Your task to perform on an android device: Go to calendar. Show me events next week Image 0: 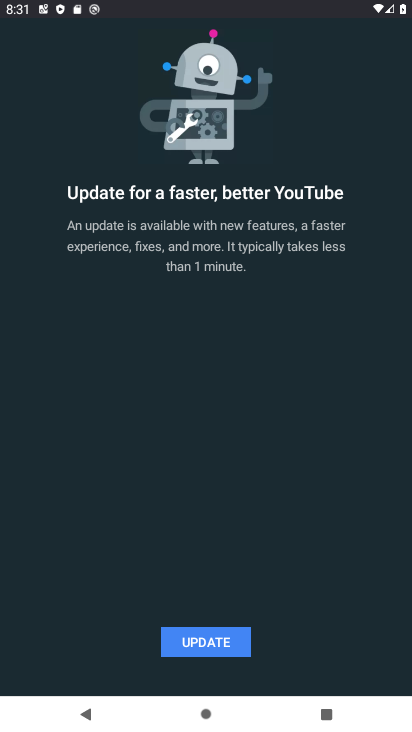
Step 0: press home button
Your task to perform on an android device: Go to calendar. Show me events next week Image 1: 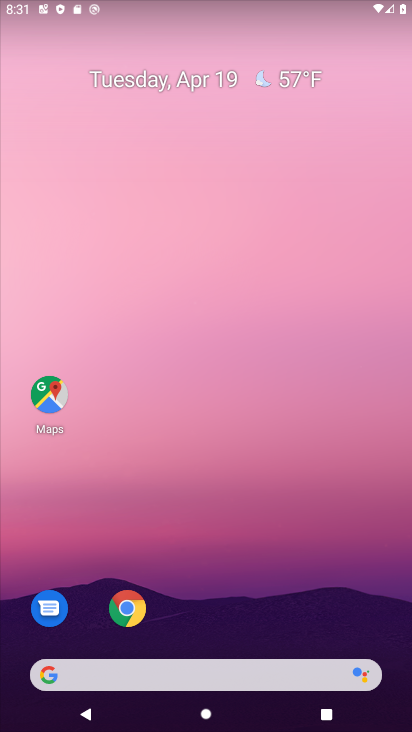
Step 1: drag from (251, 532) to (287, 165)
Your task to perform on an android device: Go to calendar. Show me events next week Image 2: 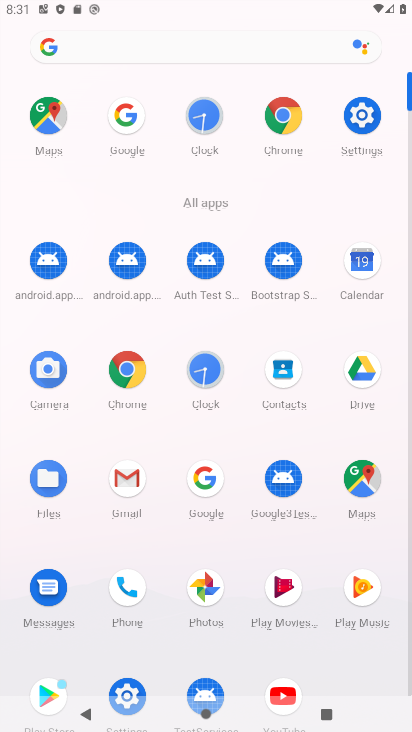
Step 2: click (361, 262)
Your task to perform on an android device: Go to calendar. Show me events next week Image 3: 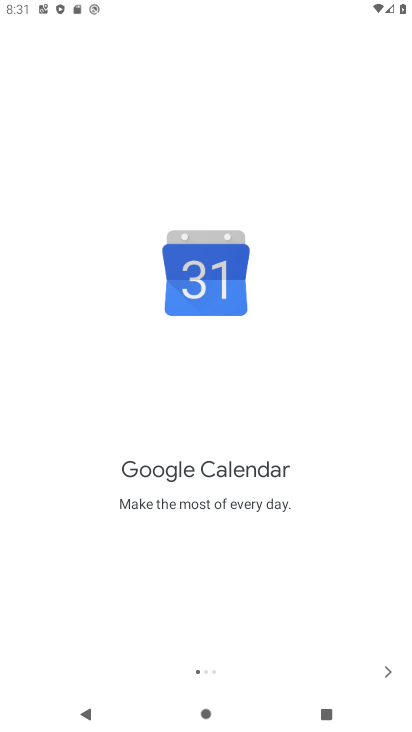
Step 3: click (387, 671)
Your task to perform on an android device: Go to calendar. Show me events next week Image 4: 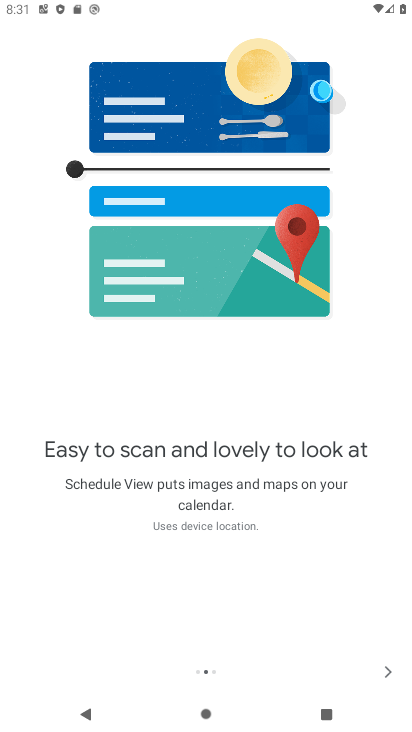
Step 4: click (387, 671)
Your task to perform on an android device: Go to calendar. Show me events next week Image 5: 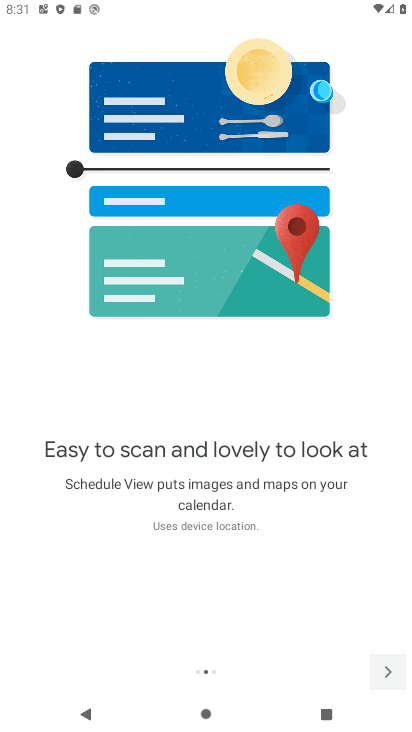
Step 5: click (387, 671)
Your task to perform on an android device: Go to calendar. Show me events next week Image 6: 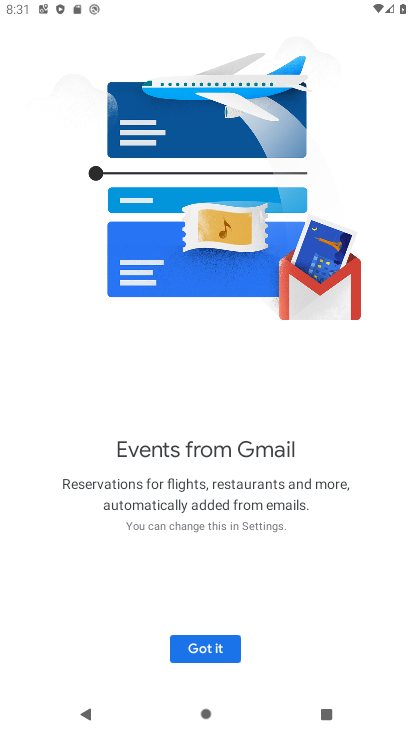
Step 6: click (207, 645)
Your task to perform on an android device: Go to calendar. Show me events next week Image 7: 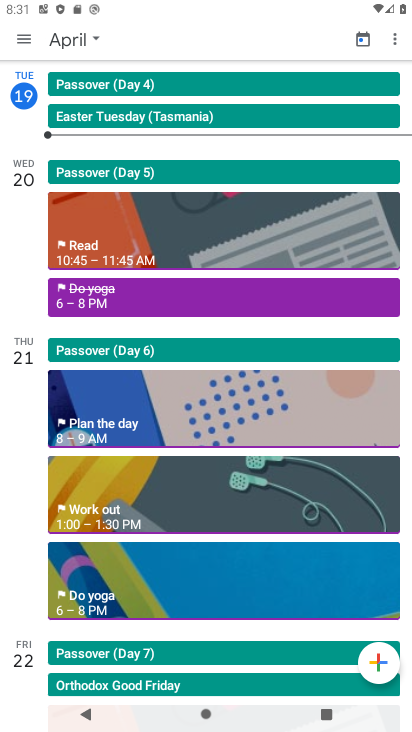
Step 7: click (82, 40)
Your task to perform on an android device: Go to calendar. Show me events next week Image 8: 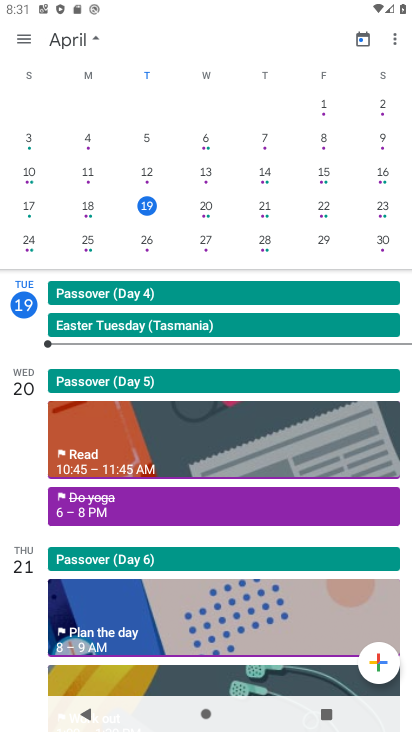
Step 8: click (146, 240)
Your task to perform on an android device: Go to calendar. Show me events next week Image 9: 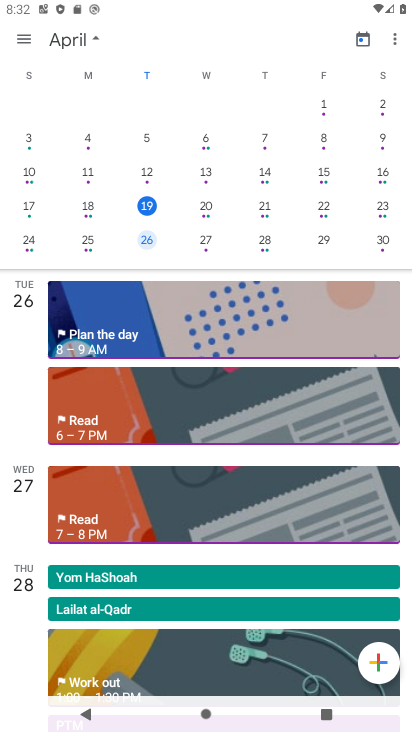
Step 9: task complete